Your task to perform on an android device: turn on translation in the chrome app Image 0: 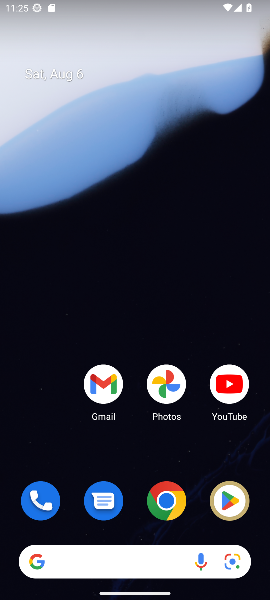
Step 0: click (162, 491)
Your task to perform on an android device: turn on translation in the chrome app Image 1: 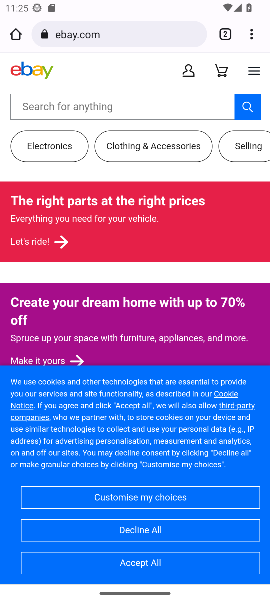
Step 1: click (254, 32)
Your task to perform on an android device: turn on translation in the chrome app Image 2: 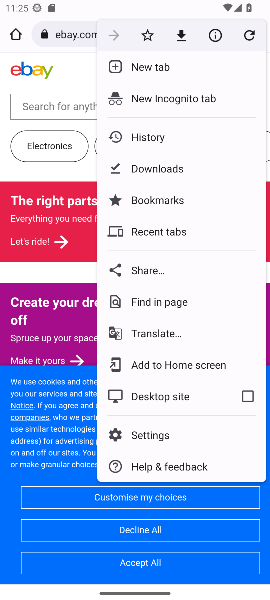
Step 2: click (151, 430)
Your task to perform on an android device: turn on translation in the chrome app Image 3: 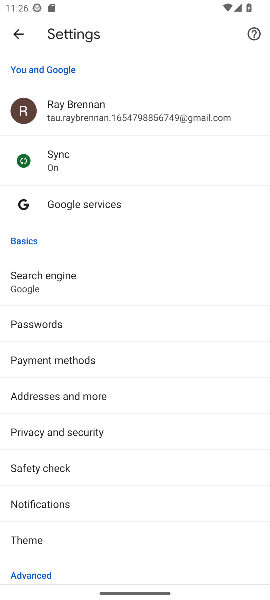
Step 3: drag from (82, 346) to (156, 22)
Your task to perform on an android device: turn on translation in the chrome app Image 4: 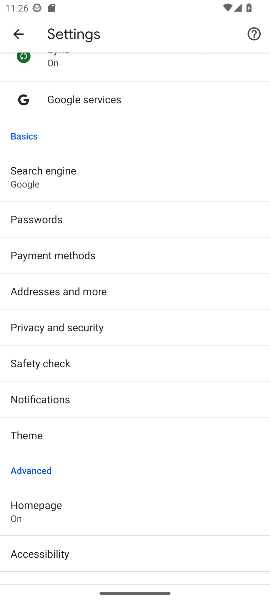
Step 4: drag from (71, 521) to (95, 222)
Your task to perform on an android device: turn on translation in the chrome app Image 5: 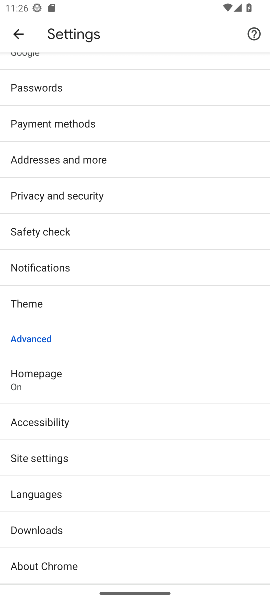
Step 5: click (50, 494)
Your task to perform on an android device: turn on translation in the chrome app Image 6: 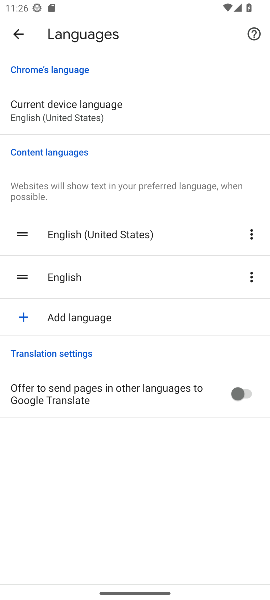
Step 6: click (246, 395)
Your task to perform on an android device: turn on translation in the chrome app Image 7: 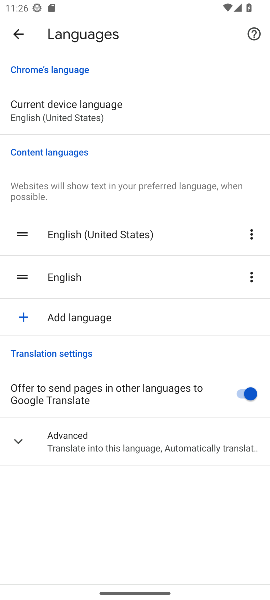
Step 7: task complete